Your task to perform on an android device: Search for seafood restaurants on Google Maps Image 0: 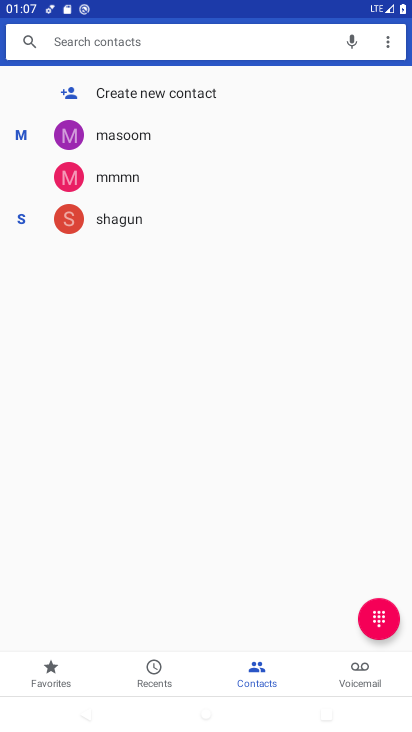
Step 0: press home button
Your task to perform on an android device: Search for seafood restaurants on Google Maps Image 1: 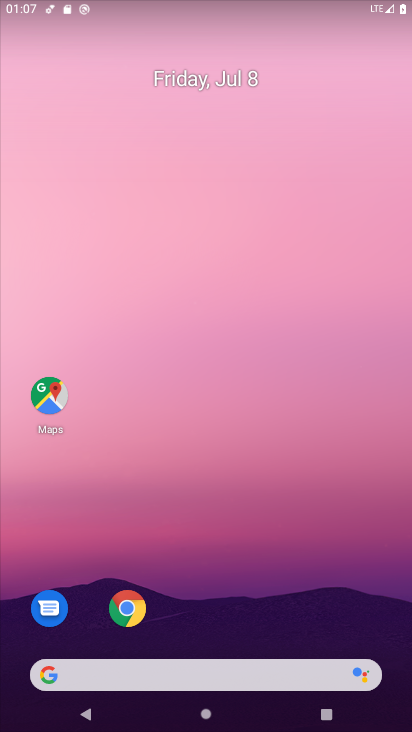
Step 1: drag from (221, 647) to (214, 407)
Your task to perform on an android device: Search for seafood restaurants on Google Maps Image 2: 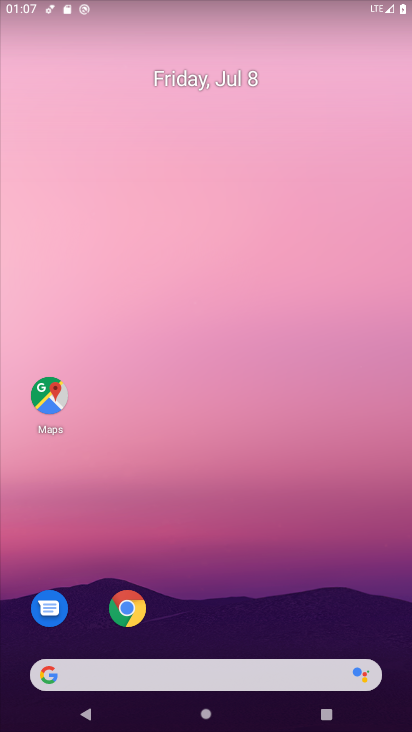
Step 2: drag from (181, 638) to (196, 89)
Your task to perform on an android device: Search for seafood restaurants on Google Maps Image 3: 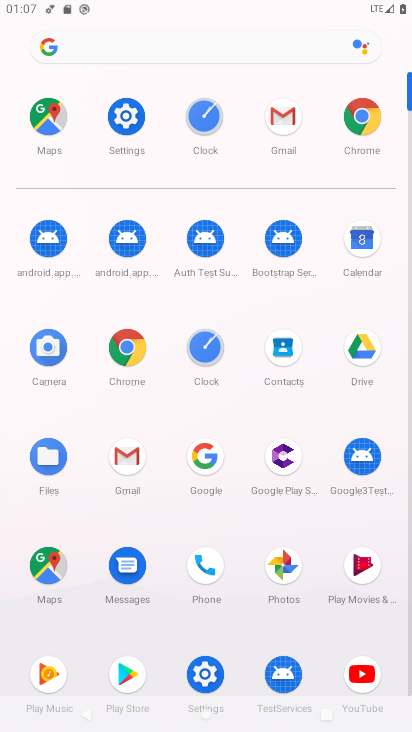
Step 3: click (45, 558)
Your task to perform on an android device: Search for seafood restaurants on Google Maps Image 4: 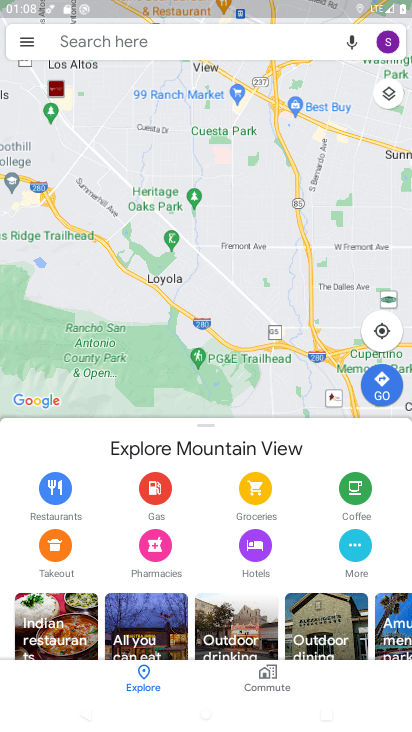
Step 4: click (197, 31)
Your task to perform on an android device: Search for seafood restaurants on Google Maps Image 5: 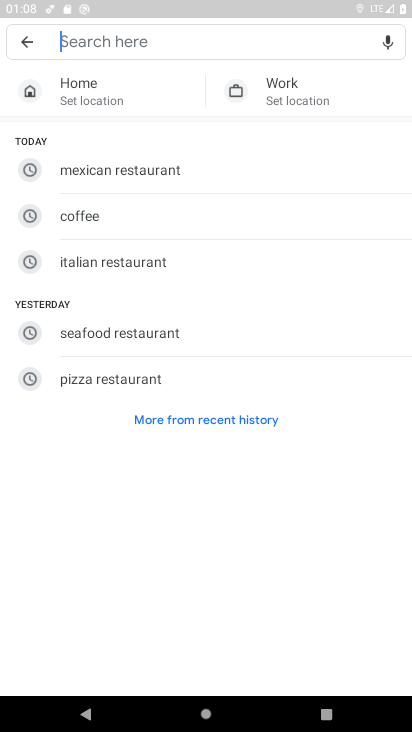
Step 5: click (157, 336)
Your task to perform on an android device: Search for seafood restaurants on Google Maps Image 6: 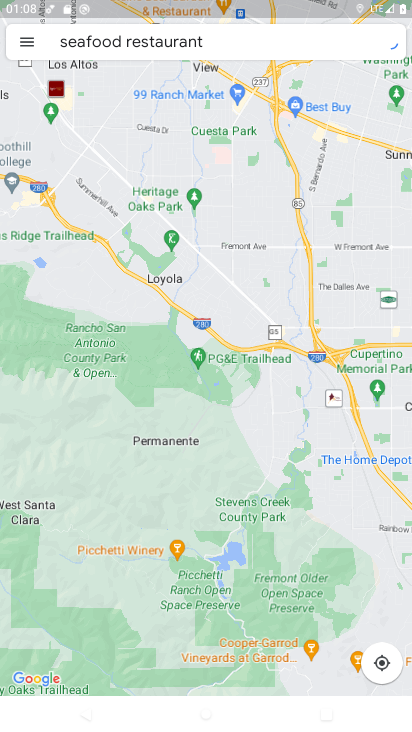
Step 6: task complete